Your task to perform on an android device: Open Amazon Image 0: 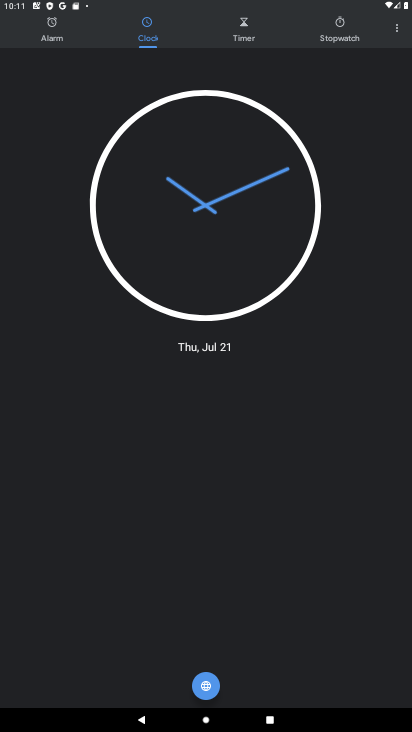
Step 0: press home button
Your task to perform on an android device: Open Amazon Image 1: 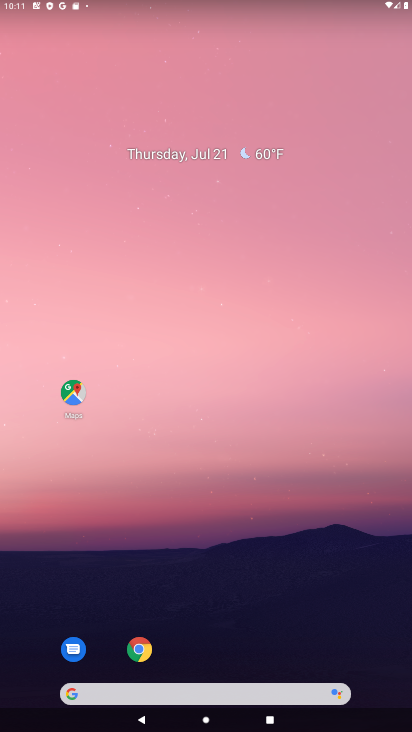
Step 1: click (137, 649)
Your task to perform on an android device: Open Amazon Image 2: 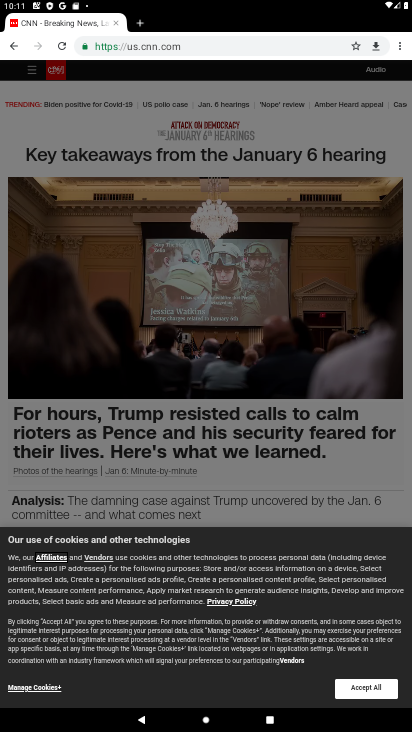
Step 2: click (247, 52)
Your task to perform on an android device: Open Amazon Image 3: 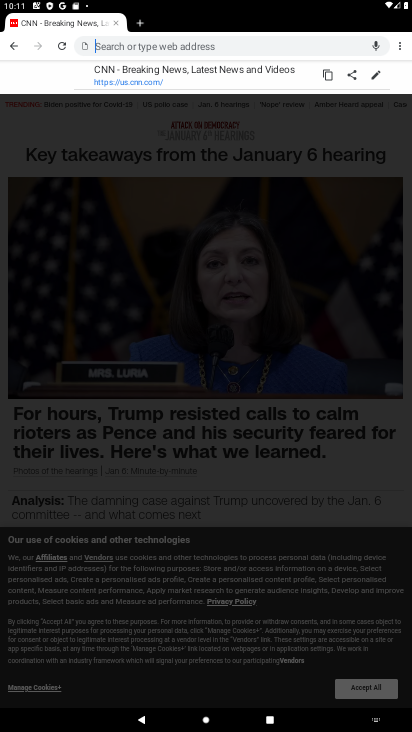
Step 3: type "Amazon"
Your task to perform on an android device: Open Amazon Image 4: 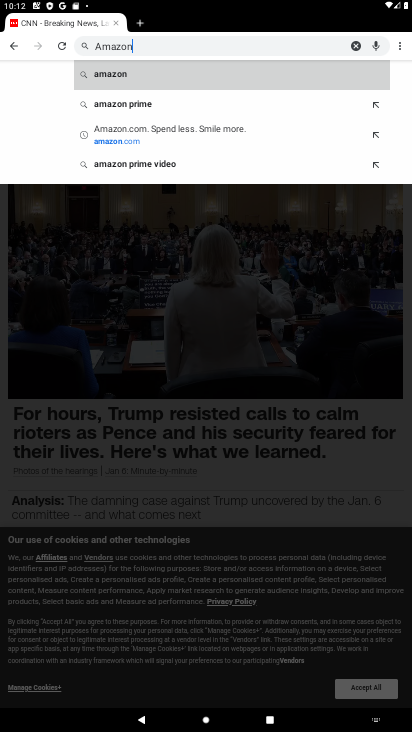
Step 4: click (136, 78)
Your task to perform on an android device: Open Amazon Image 5: 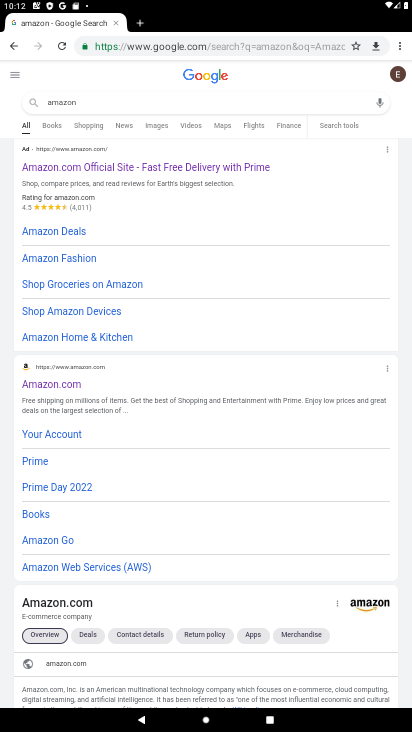
Step 5: click (50, 388)
Your task to perform on an android device: Open Amazon Image 6: 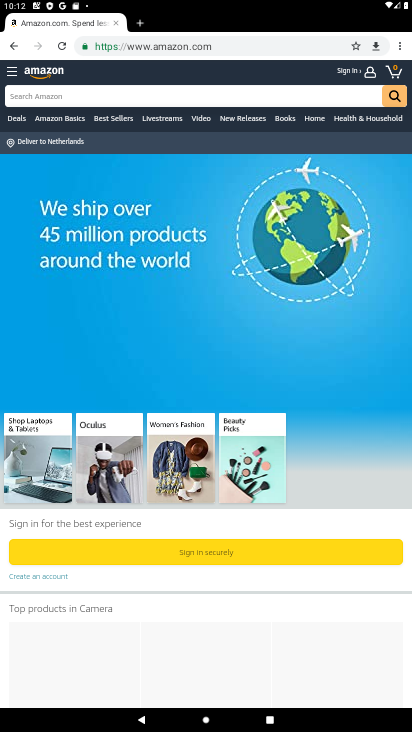
Step 6: task complete